Your task to perform on an android device: toggle priority inbox in the gmail app Image 0: 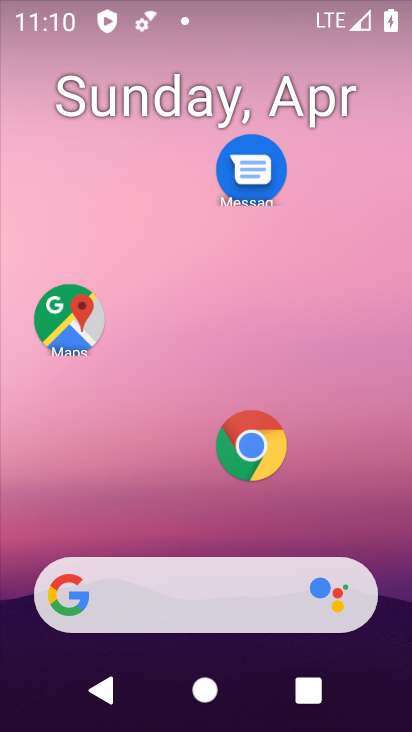
Step 0: drag from (194, 567) to (372, 3)
Your task to perform on an android device: toggle priority inbox in the gmail app Image 1: 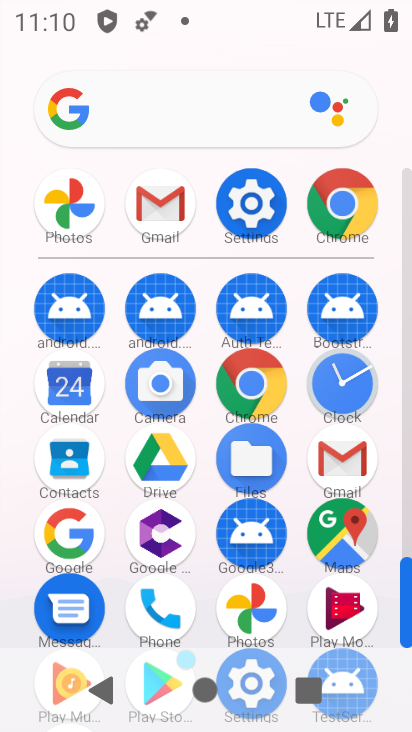
Step 1: click (153, 217)
Your task to perform on an android device: toggle priority inbox in the gmail app Image 2: 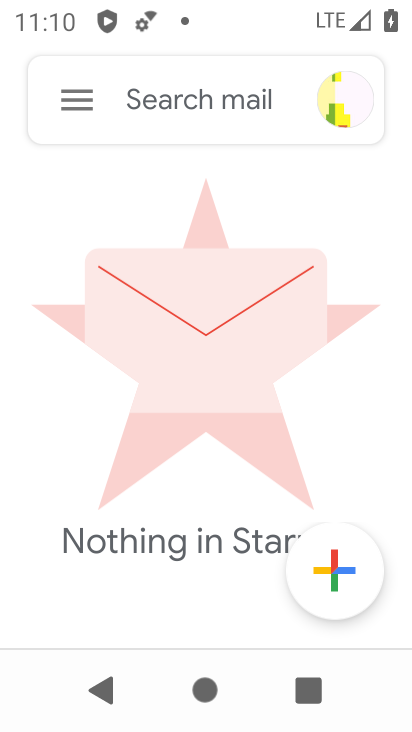
Step 2: click (80, 107)
Your task to perform on an android device: toggle priority inbox in the gmail app Image 3: 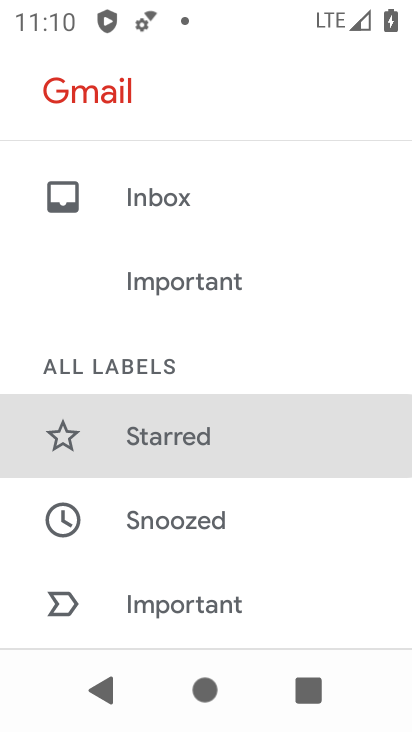
Step 3: drag from (139, 588) to (379, 123)
Your task to perform on an android device: toggle priority inbox in the gmail app Image 4: 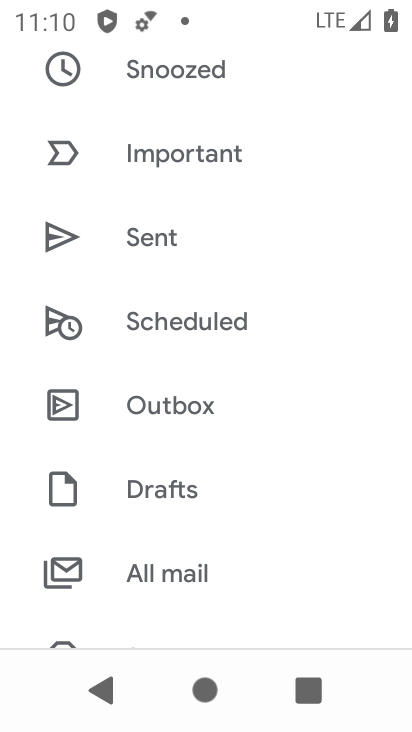
Step 4: drag from (191, 627) to (323, 210)
Your task to perform on an android device: toggle priority inbox in the gmail app Image 5: 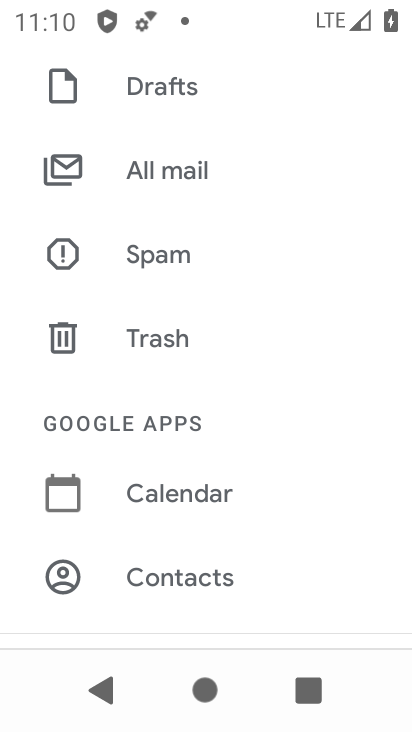
Step 5: drag from (167, 608) to (330, 145)
Your task to perform on an android device: toggle priority inbox in the gmail app Image 6: 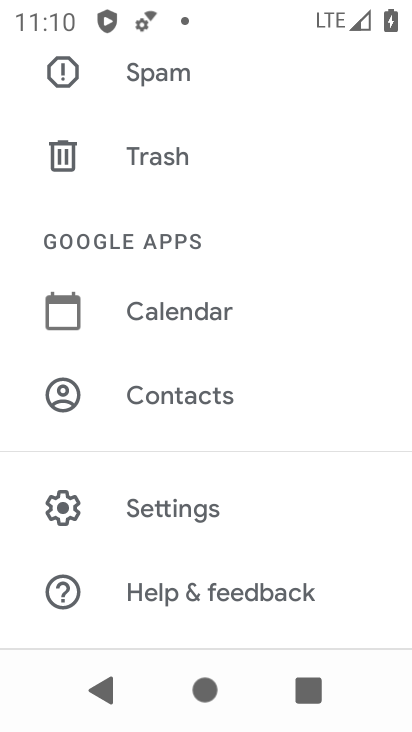
Step 6: click (192, 512)
Your task to perform on an android device: toggle priority inbox in the gmail app Image 7: 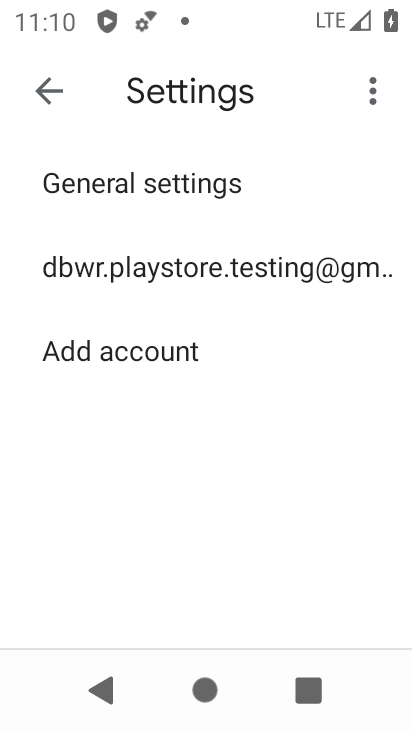
Step 7: click (248, 266)
Your task to perform on an android device: toggle priority inbox in the gmail app Image 8: 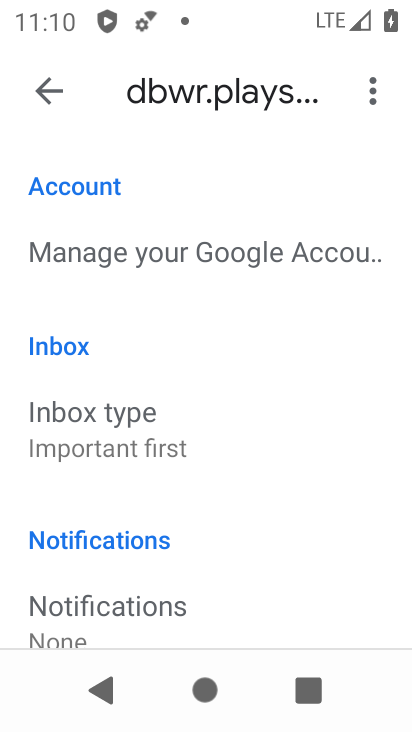
Step 8: drag from (269, 382) to (267, 601)
Your task to perform on an android device: toggle priority inbox in the gmail app Image 9: 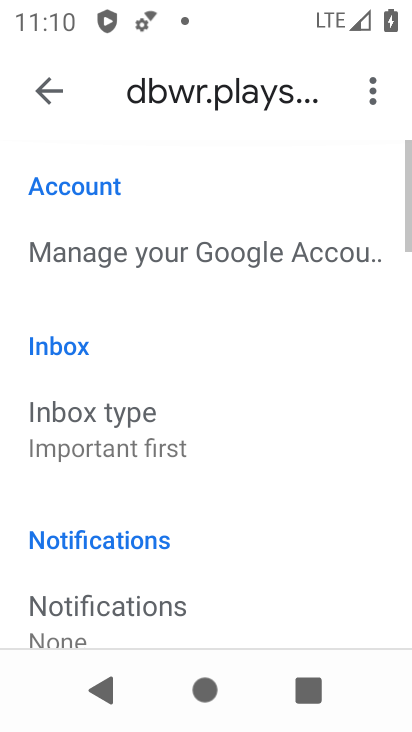
Step 9: drag from (256, 599) to (328, 406)
Your task to perform on an android device: toggle priority inbox in the gmail app Image 10: 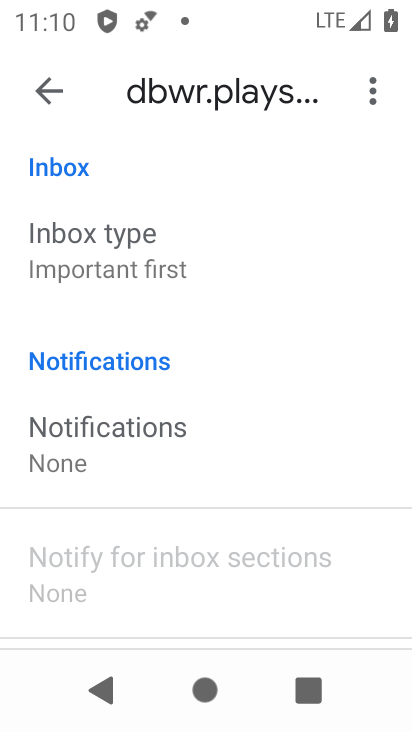
Step 10: click (118, 243)
Your task to perform on an android device: toggle priority inbox in the gmail app Image 11: 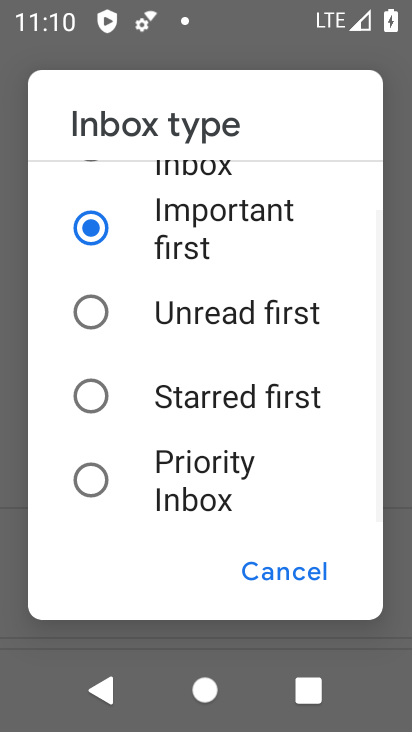
Step 11: click (100, 484)
Your task to perform on an android device: toggle priority inbox in the gmail app Image 12: 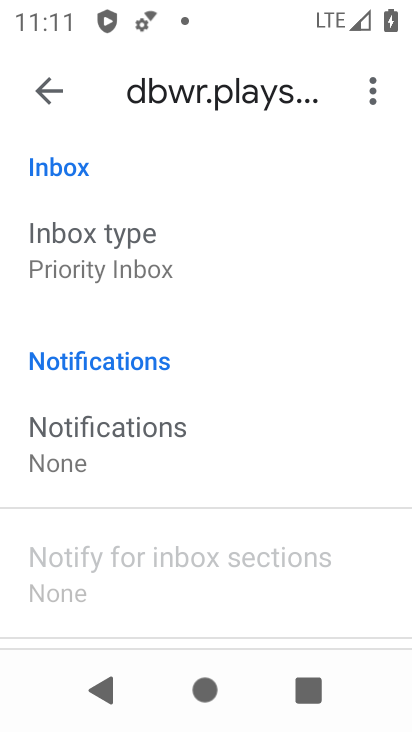
Step 12: task complete